Your task to perform on an android device: Open Chrome and go to the settings page Image 0: 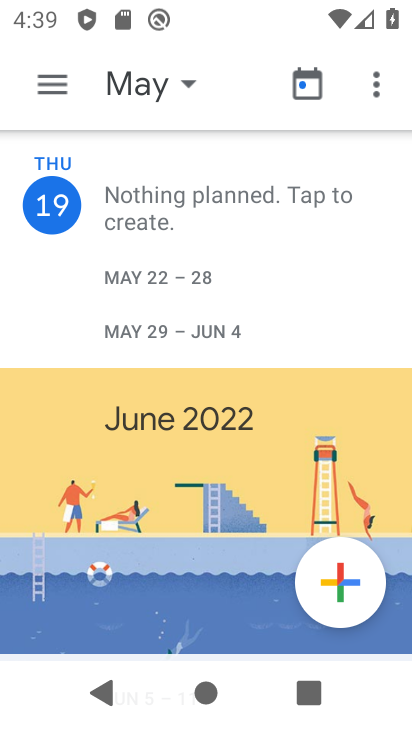
Step 0: press home button
Your task to perform on an android device: Open Chrome and go to the settings page Image 1: 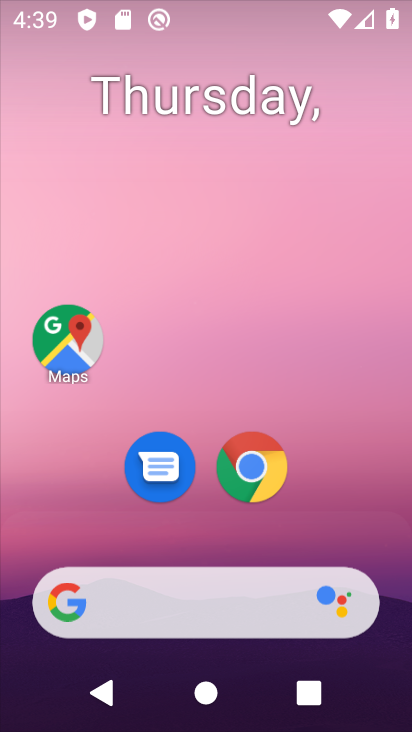
Step 1: drag from (368, 510) to (377, 32)
Your task to perform on an android device: Open Chrome and go to the settings page Image 2: 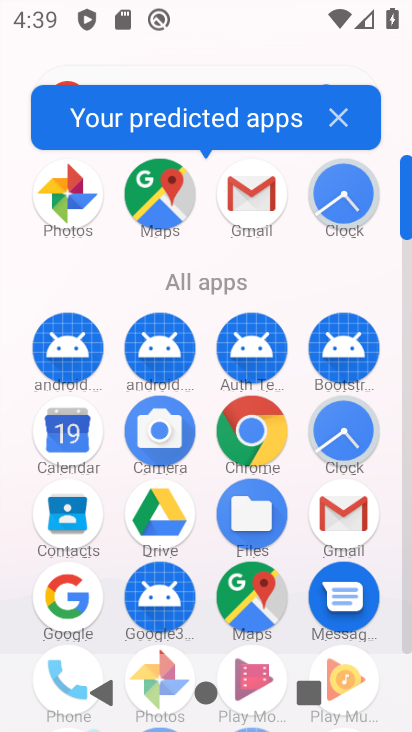
Step 2: drag from (400, 524) to (392, 133)
Your task to perform on an android device: Open Chrome and go to the settings page Image 3: 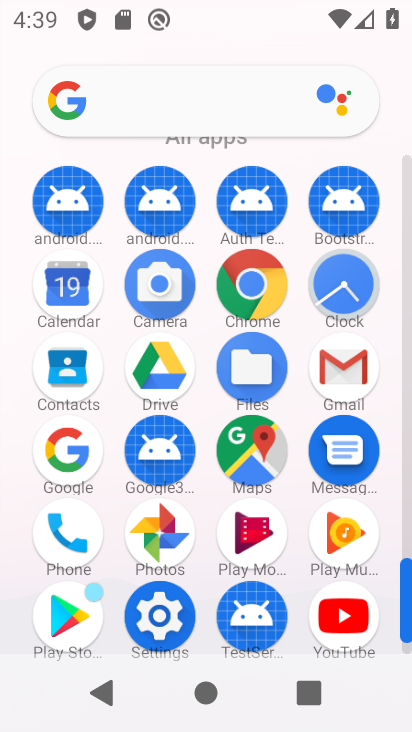
Step 3: click (261, 250)
Your task to perform on an android device: Open Chrome and go to the settings page Image 4: 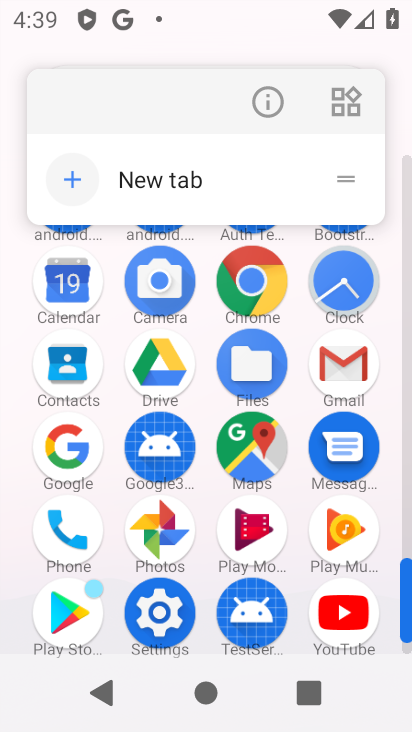
Step 4: click (171, 621)
Your task to perform on an android device: Open Chrome and go to the settings page Image 5: 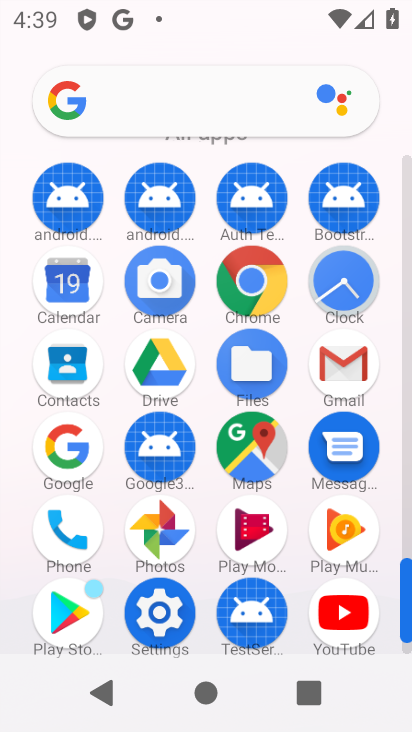
Step 5: click (169, 619)
Your task to perform on an android device: Open Chrome and go to the settings page Image 6: 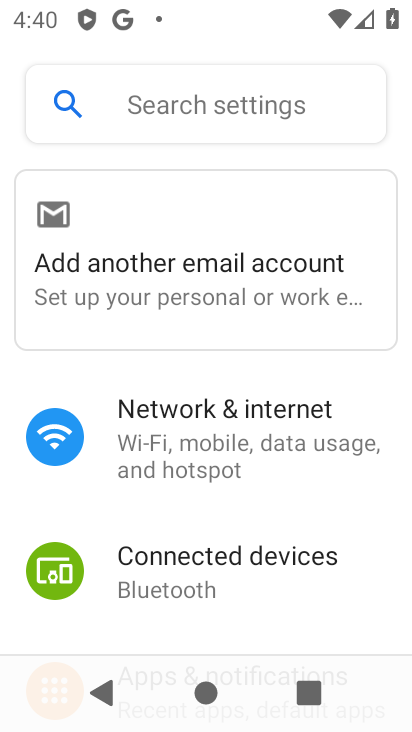
Step 6: press home button
Your task to perform on an android device: Open Chrome and go to the settings page Image 7: 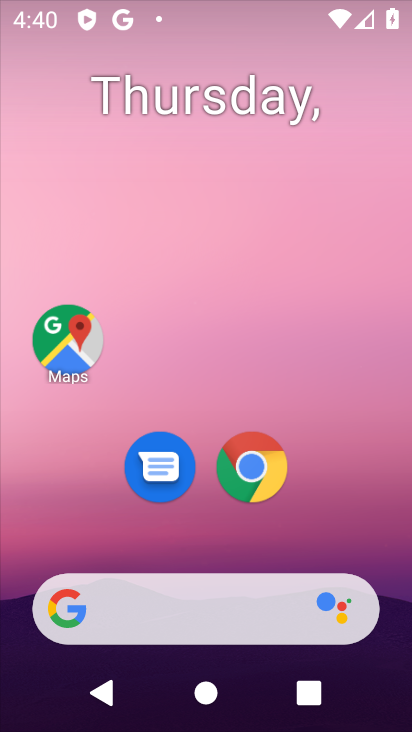
Step 7: drag from (395, 469) to (409, 89)
Your task to perform on an android device: Open Chrome and go to the settings page Image 8: 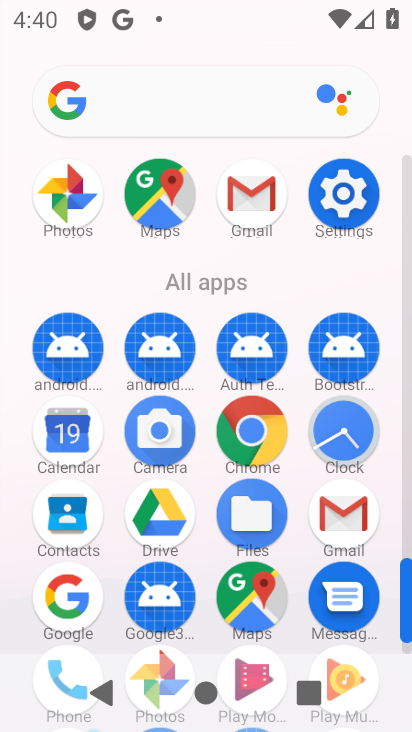
Step 8: click (237, 419)
Your task to perform on an android device: Open Chrome and go to the settings page Image 9: 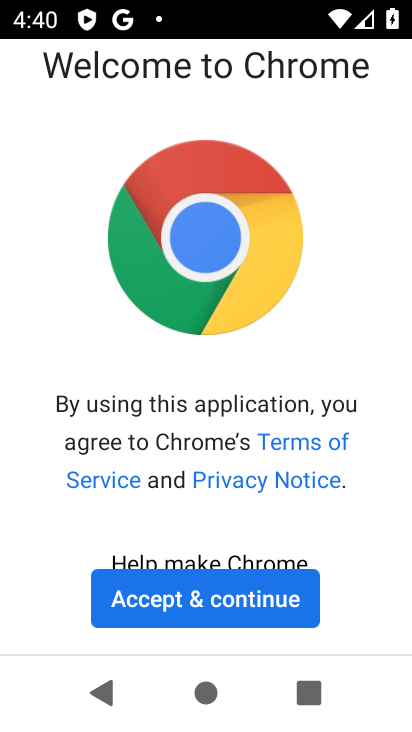
Step 9: click (249, 596)
Your task to perform on an android device: Open Chrome and go to the settings page Image 10: 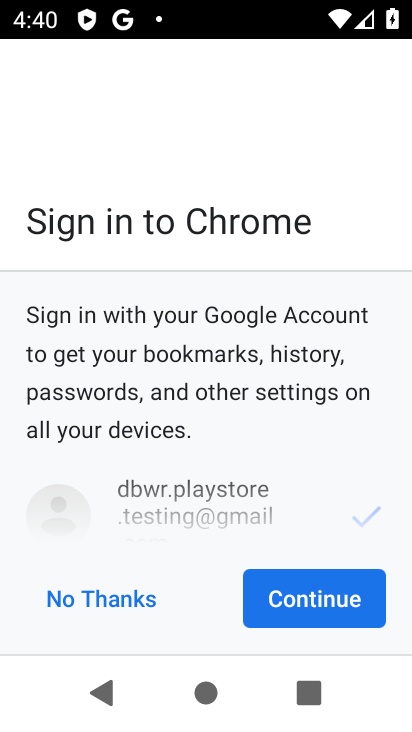
Step 10: click (116, 580)
Your task to perform on an android device: Open Chrome and go to the settings page Image 11: 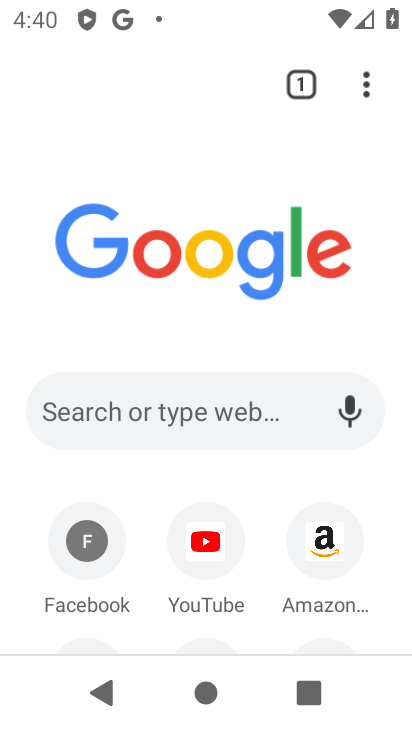
Step 11: task complete